Your task to perform on an android device: Go to privacy settings Image 0: 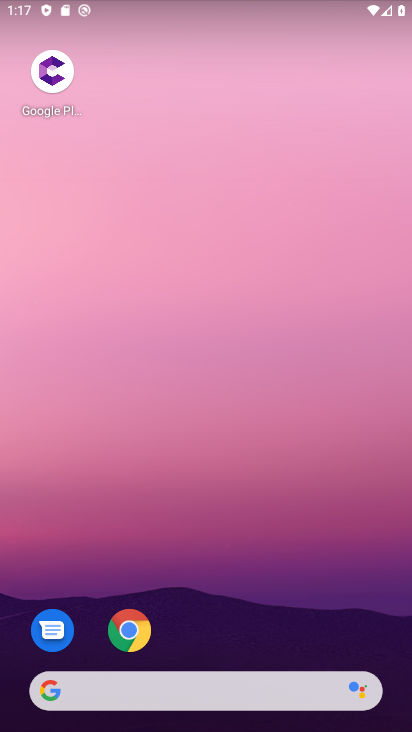
Step 0: drag from (279, 572) to (184, 55)
Your task to perform on an android device: Go to privacy settings Image 1: 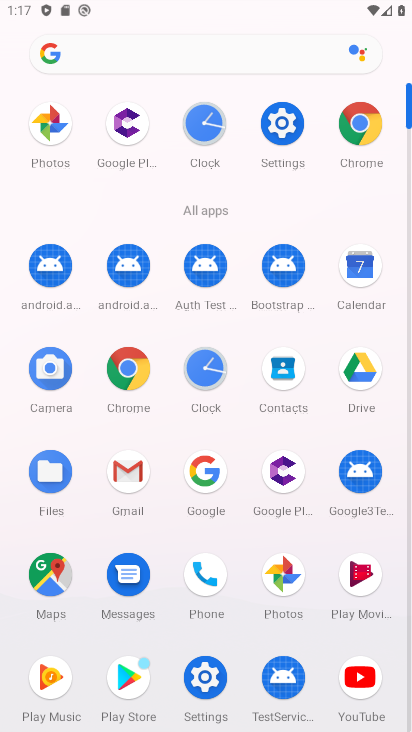
Step 1: click (286, 119)
Your task to perform on an android device: Go to privacy settings Image 2: 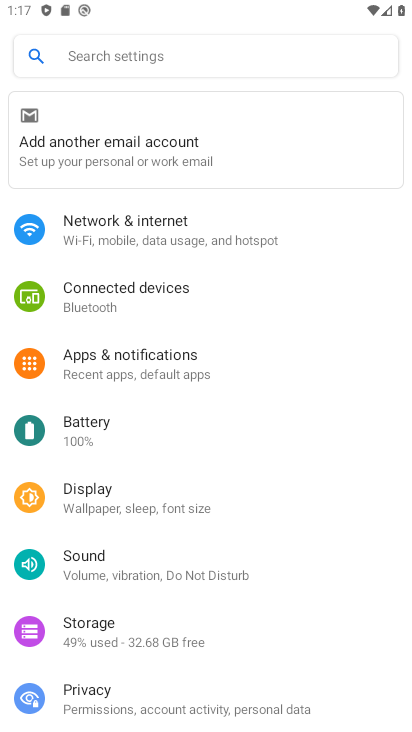
Step 2: click (232, 705)
Your task to perform on an android device: Go to privacy settings Image 3: 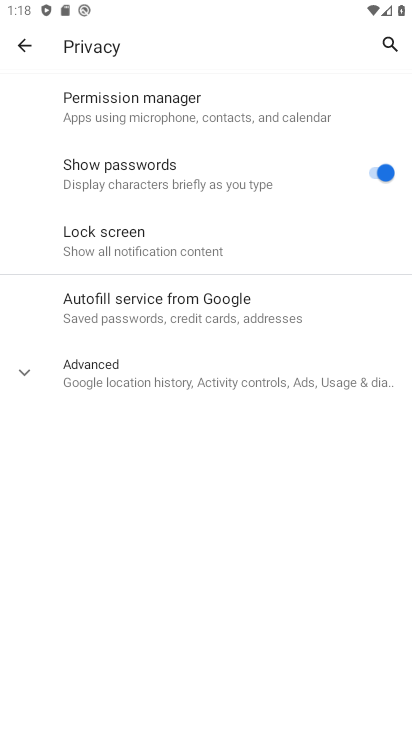
Step 3: task complete